Your task to perform on an android device: check out phone information Image 0: 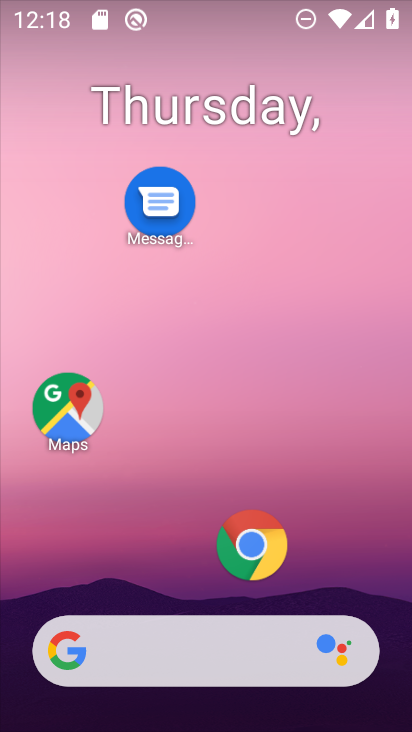
Step 0: drag from (178, 568) to (208, 214)
Your task to perform on an android device: check out phone information Image 1: 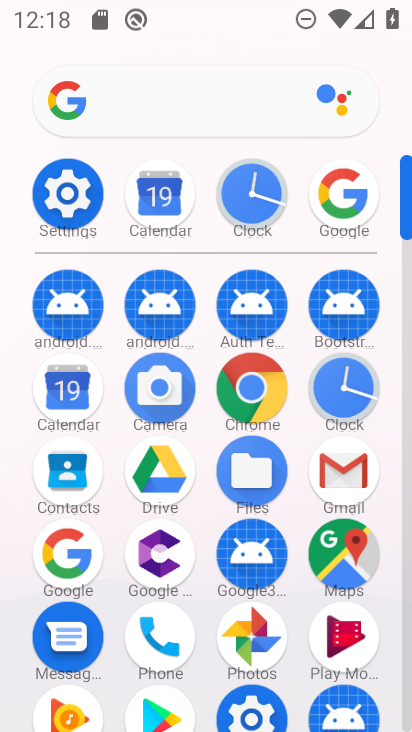
Step 1: click (91, 207)
Your task to perform on an android device: check out phone information Image 2: 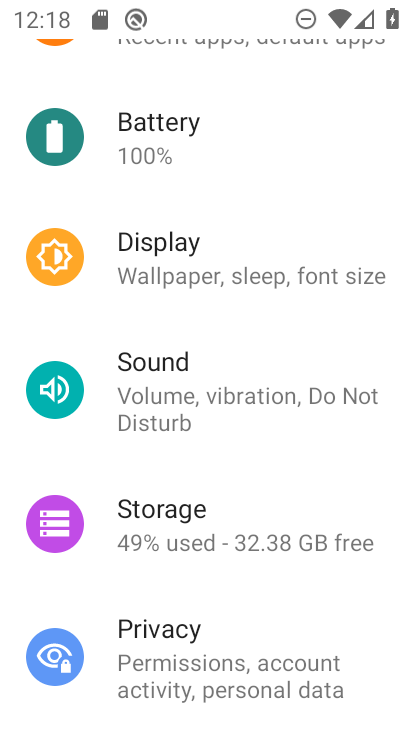
Step 2: drag from (269, 595) to (281, 231)
Your task to perform on an android device: check out phone information Image 3: 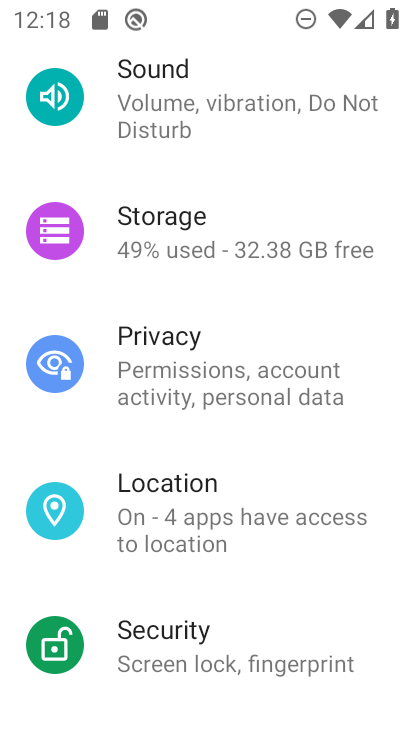
Step 3: drag from (191, 622) to (218, 285)
Your task to perform on an android device: check out phone information Image 4: 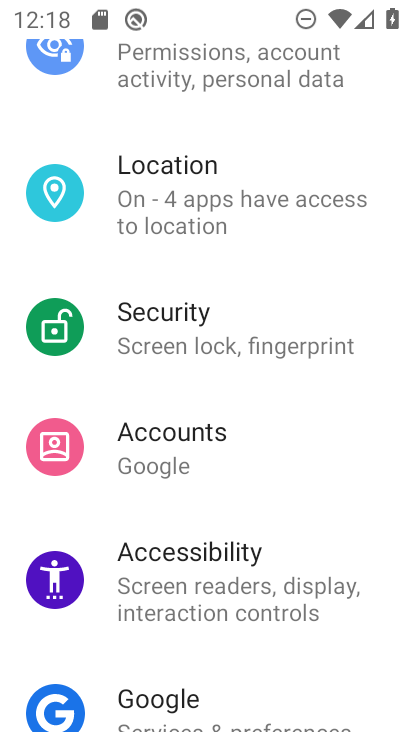
Step 4: drag from (223, 655) to (228, 265)
Your task to perform on an android device: check out phone information Image 5: 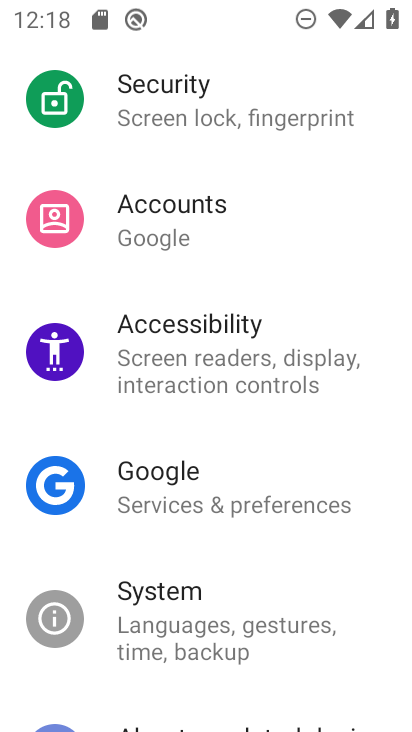
Step 5: drag from (278, 639) to (265, 308)
Your task to perform on an android device: check out phone information Image 6: 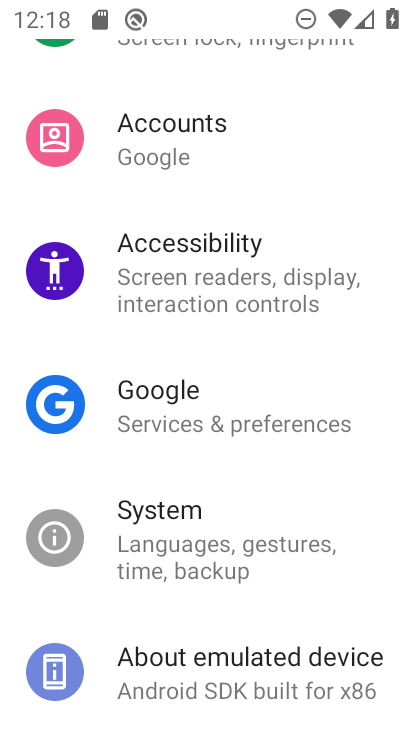
Step 6: click (245, 625)
Your task to perform on an android device: check out phone information Image 7: 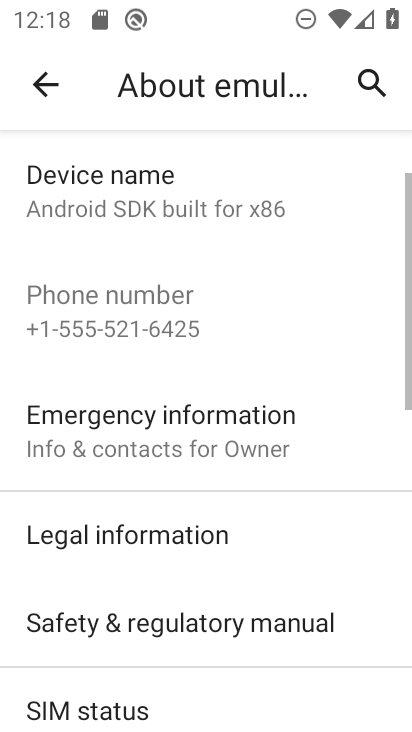
Step 7: task complete